Your task to perform on an android device: What's on my calendar for the rest of the month? Image 0: 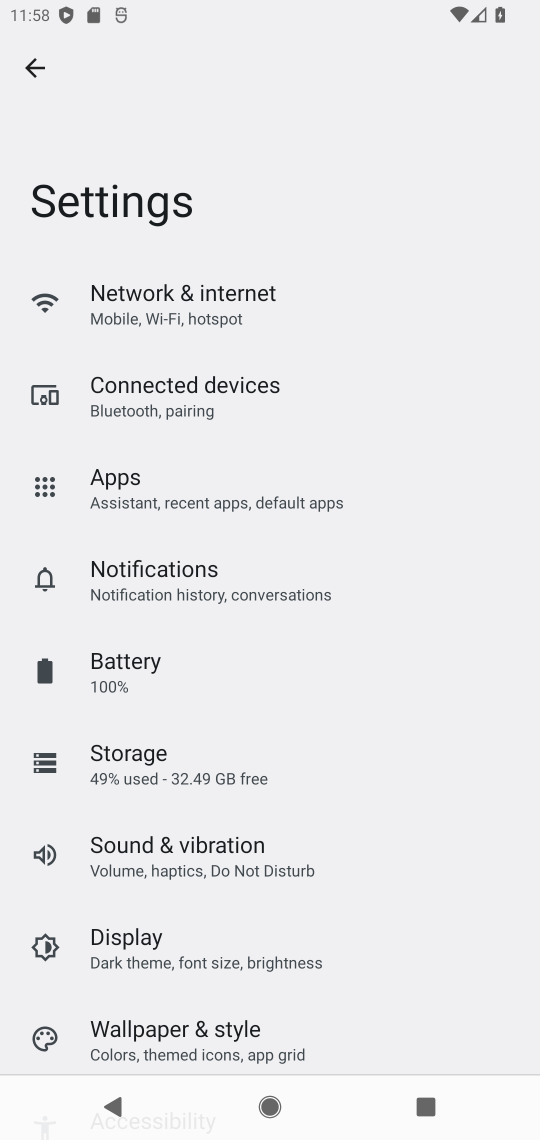
Step 0: press home button
Your task to perform on an android device: What's on my calendar for the rest of the month? Image 1: 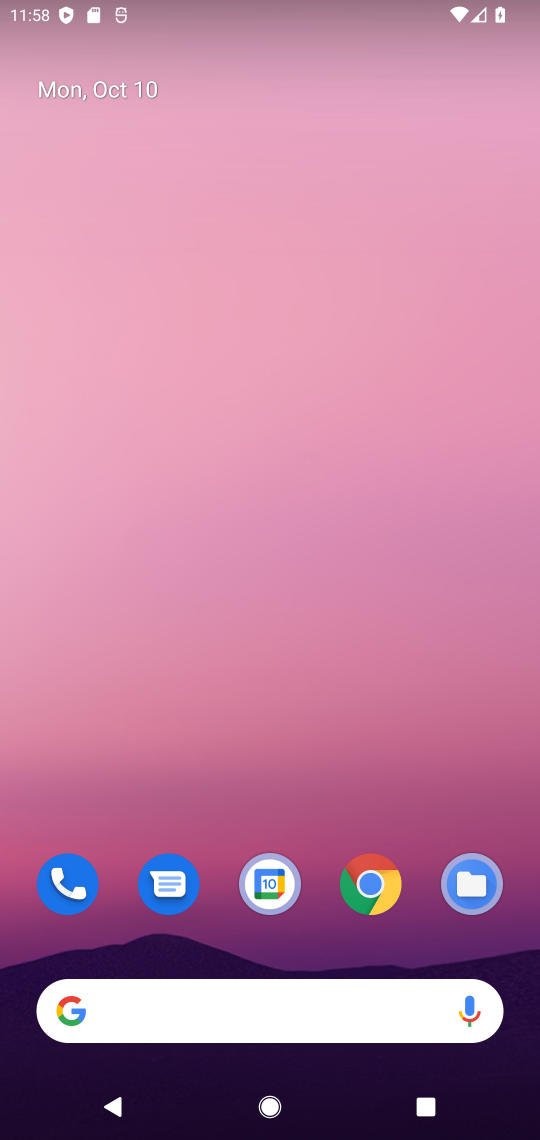
Step 1: drag from (215, 846) to (180, 212)
Your task to perform on an android device: What's on my calendar for the rest of the month? Image 2: 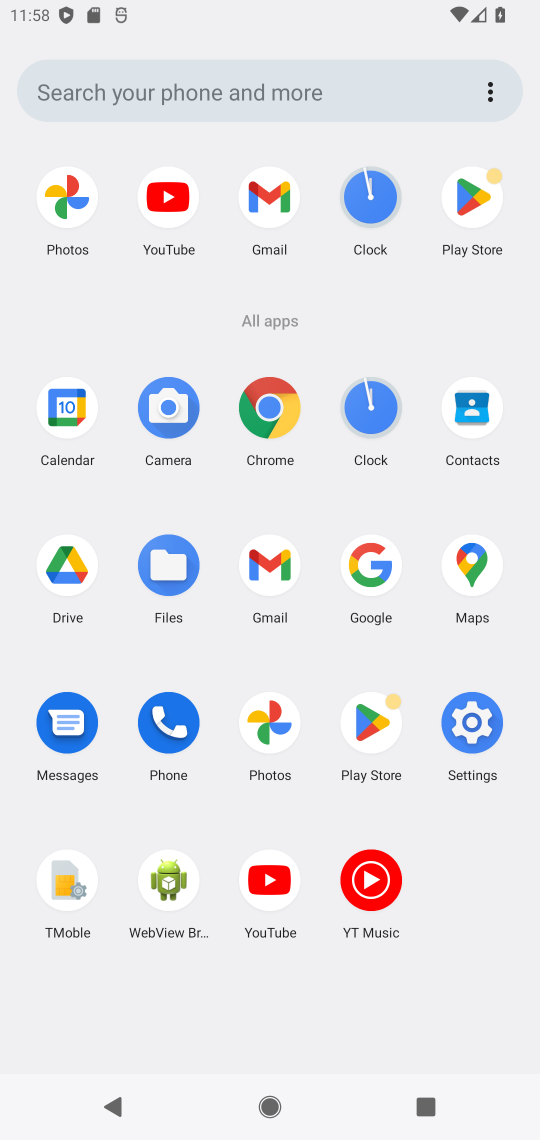
Step 2: click (57, 423)
Your task to perform on an android device: What's on my calendar for the rest of the month? Image 3: 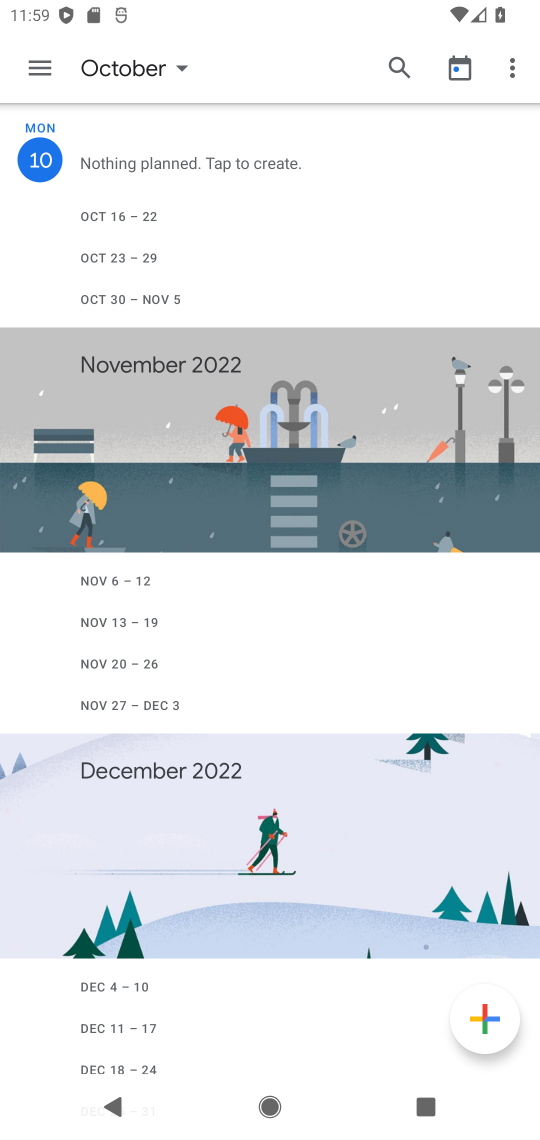
Step 3: drag from (246, 240) to (247, 380)
Your task to perform on an android device: What's on my calendar for the rest of the month? Image 4: 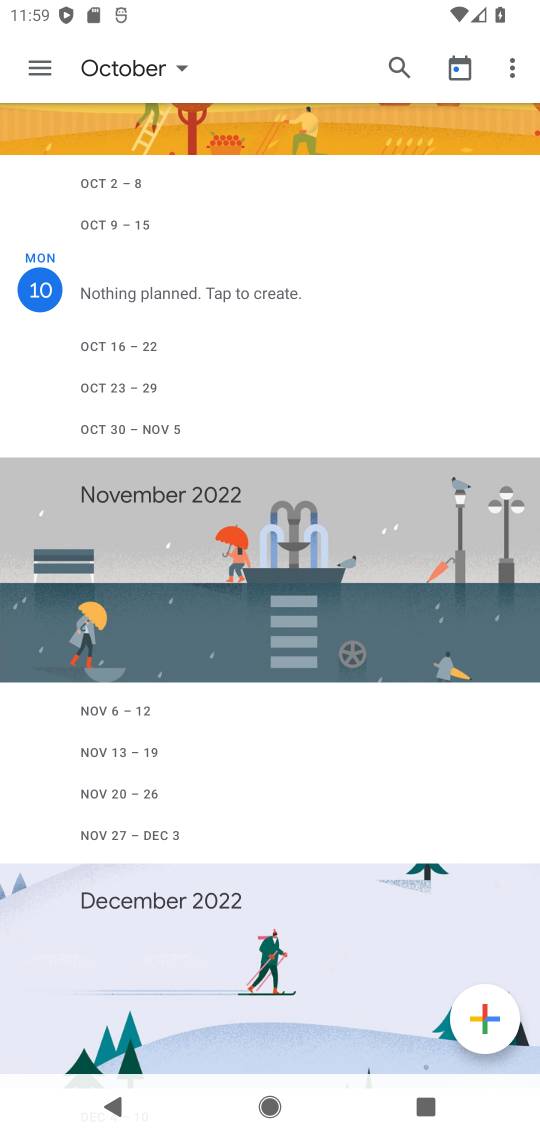
Step 4: click (35, 63)
Your task to perform on an android device: What's on my calendar for the rest of the month? Image 5: 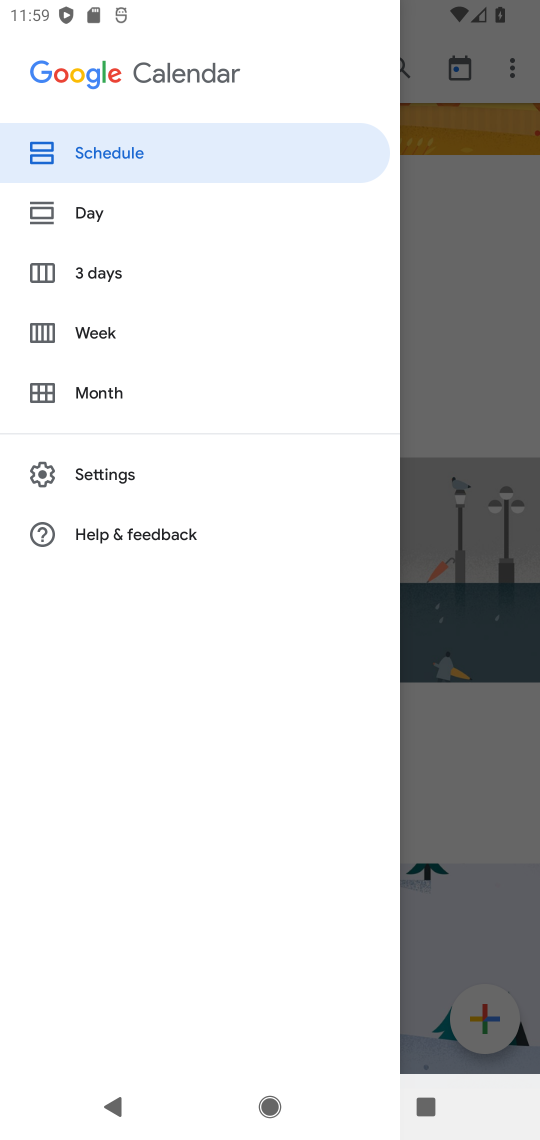
Step 5: click (149, 390)
Your task to perform on an android device: What's on my calendar for the rest of the month? Image 6: 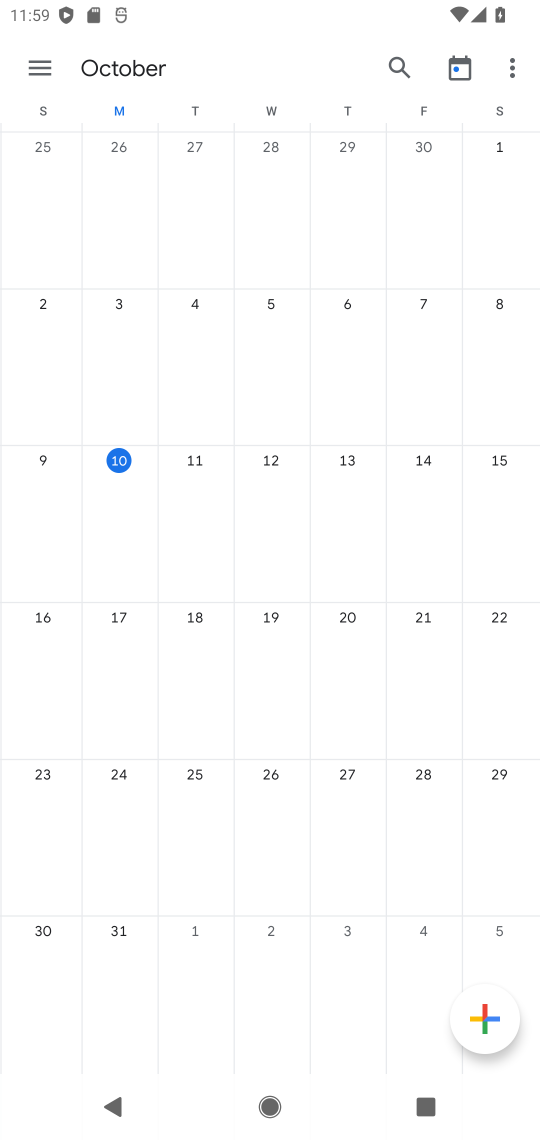
Step 6: task complete